Your task to perform on an android device: Check the weather Image 0: 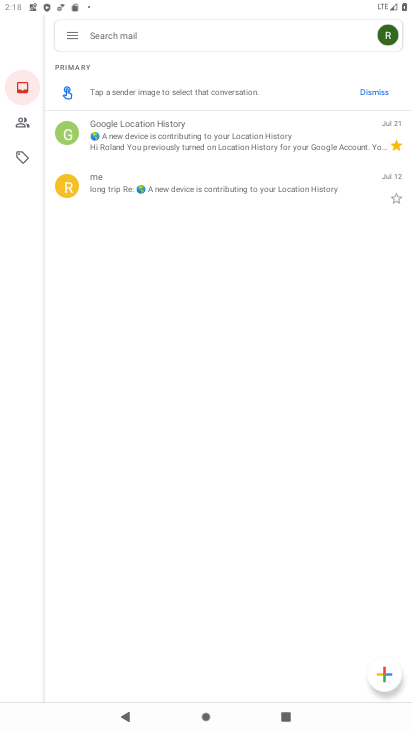
Step 0: press home button
Your task to perform on an android device: Check the weather Image 1: 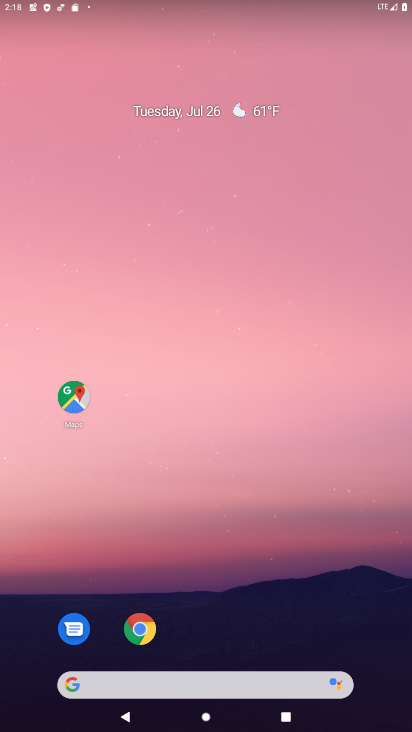
Step 1: click (190, 682)
Your task to perform on an android device: Check the weather Image 2: 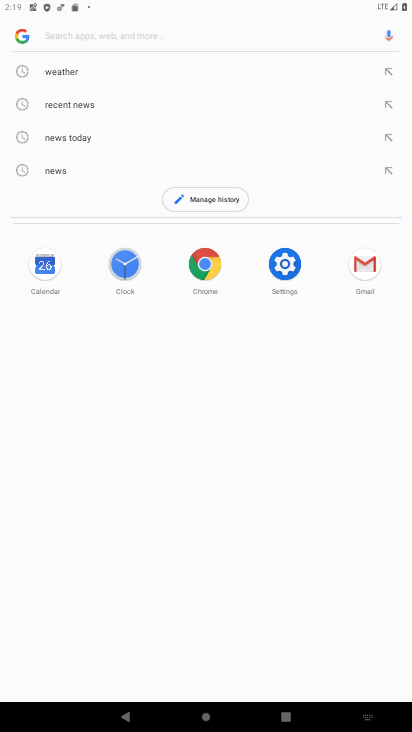
Step 2: click (58, 74)
Your task to perform on an android device: Check the weather Image 3: 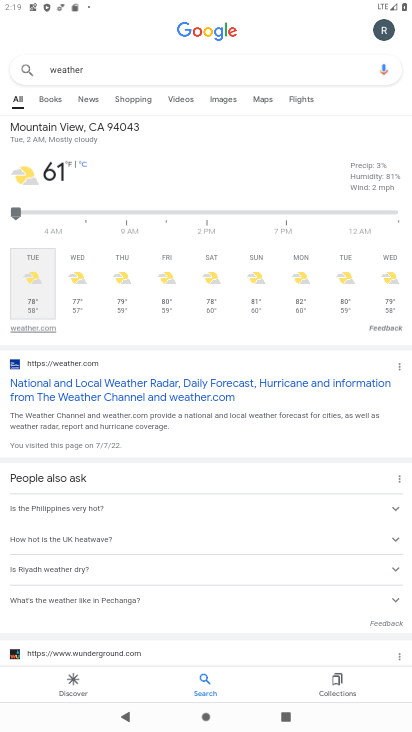
Step 3: task complete